Your task to perform on an android device: find snoozed emails in the gmail app Image 0: 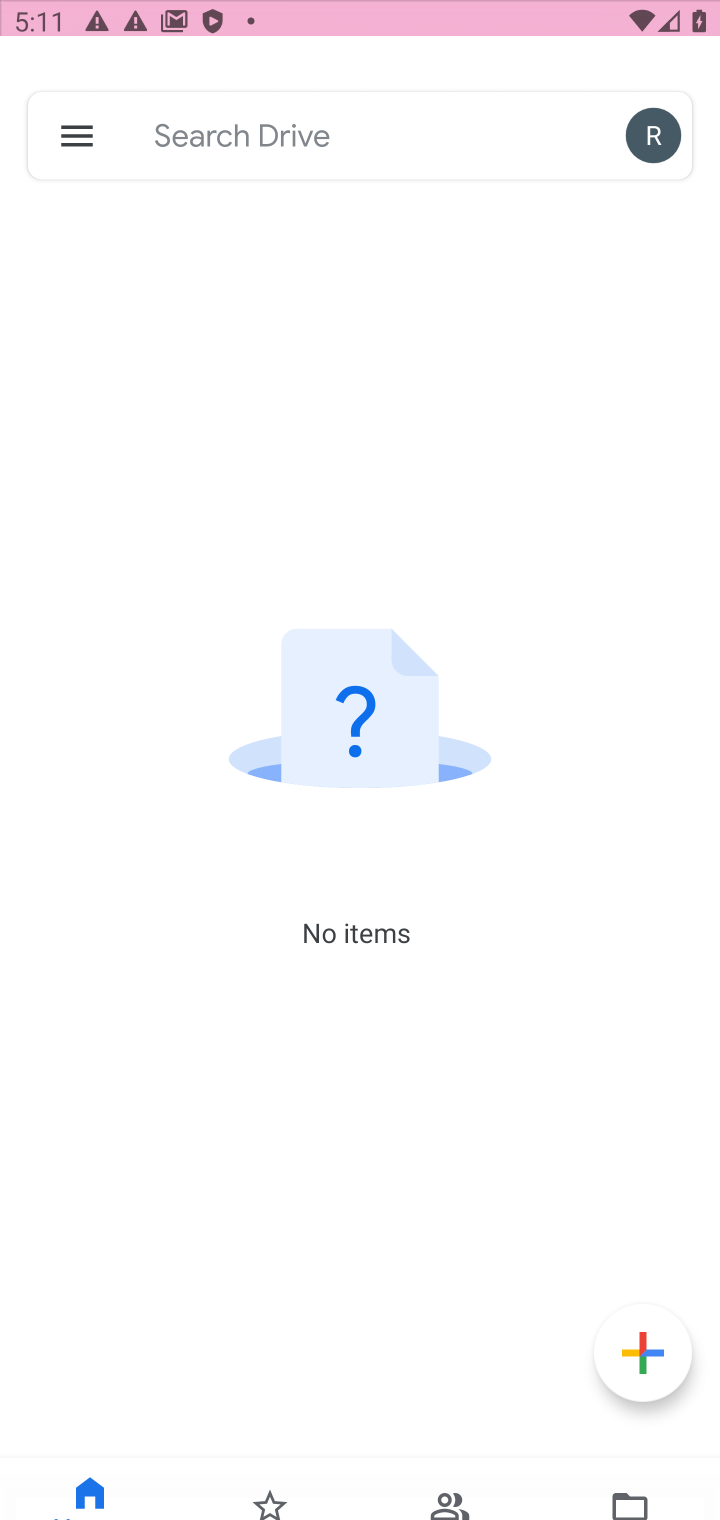
Step 0: press home button
Your task to perform on an android device: find snoozed emails in the gmail app Image 1: 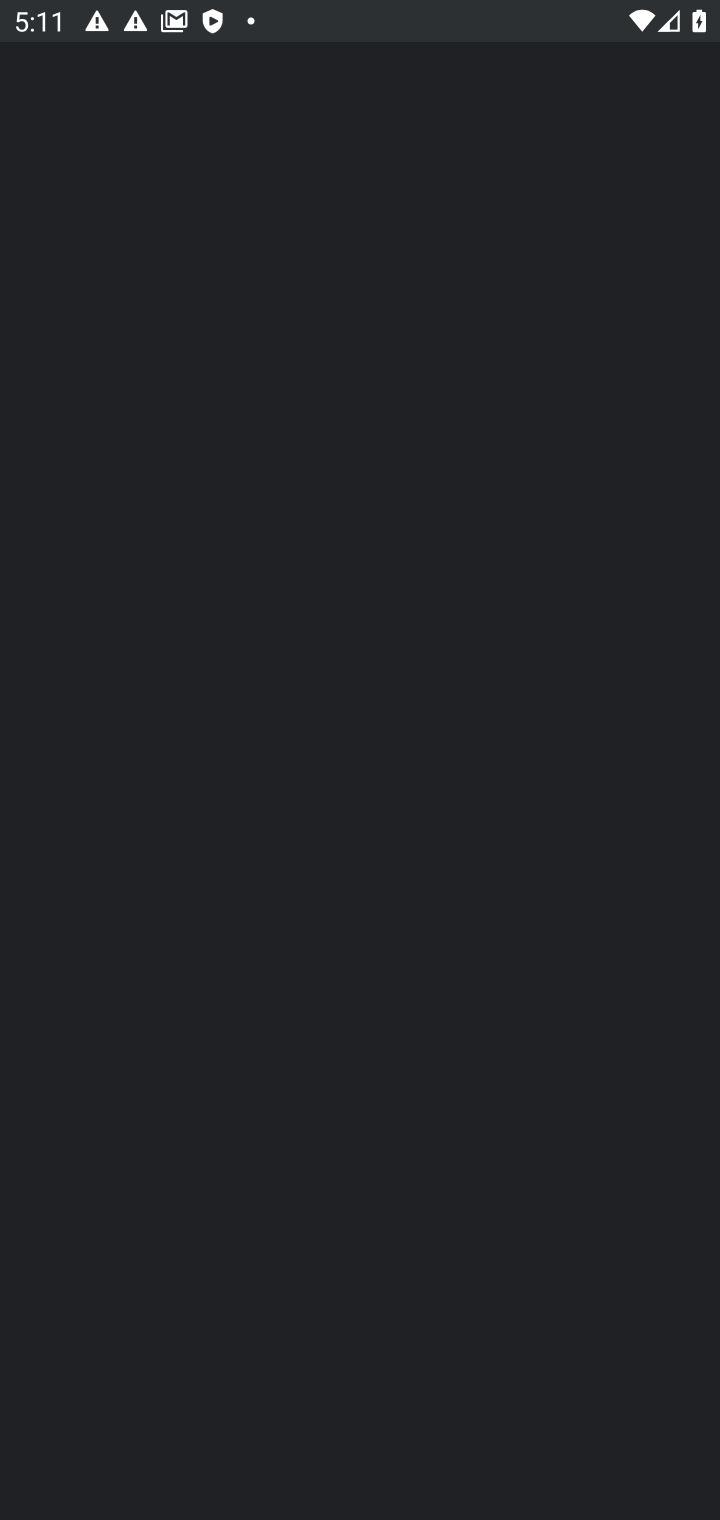
Step 1: press home button
Your task to perform on an android device: find snoozed emails in the gmail app Image 2: 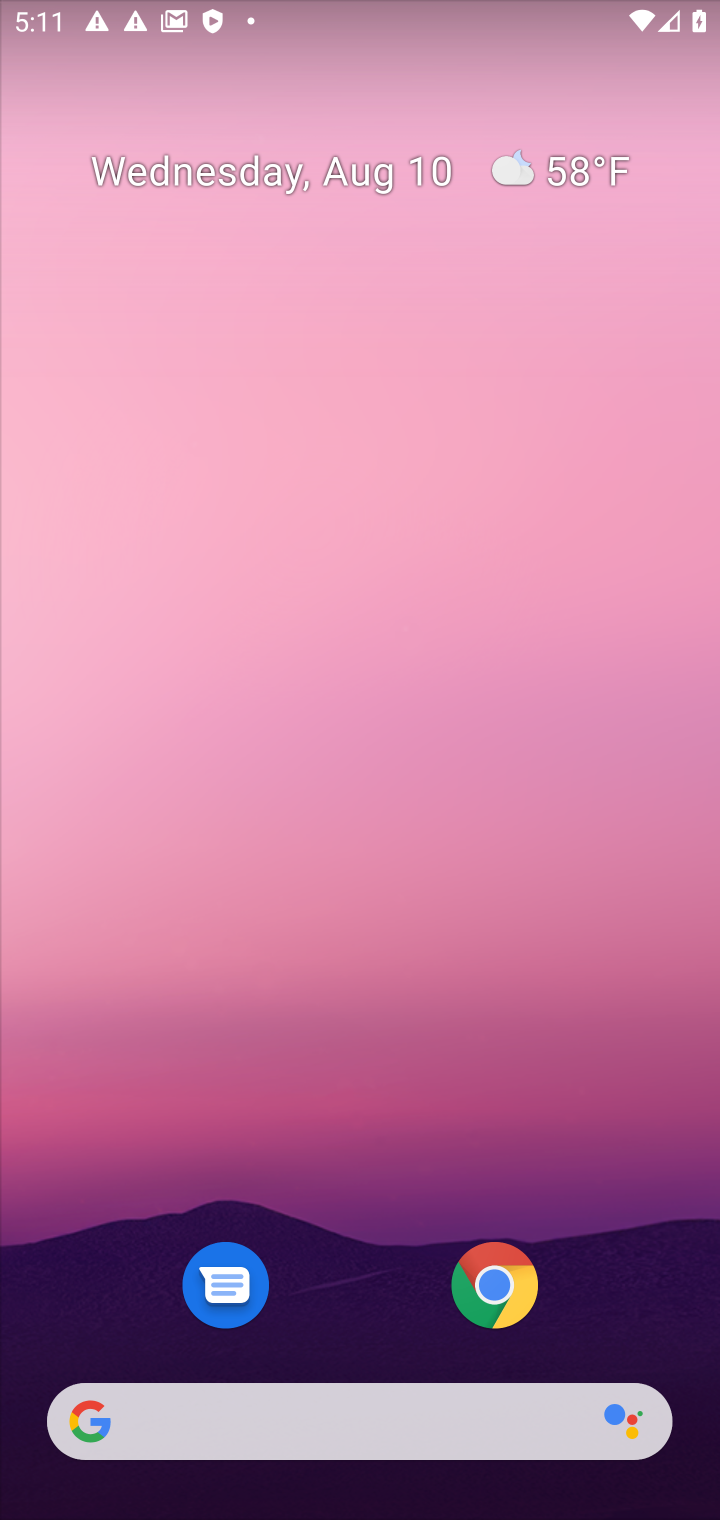
Step 2: press home button
Your task to perform on an android device: find snoozed emails in the gmail app Image 3: 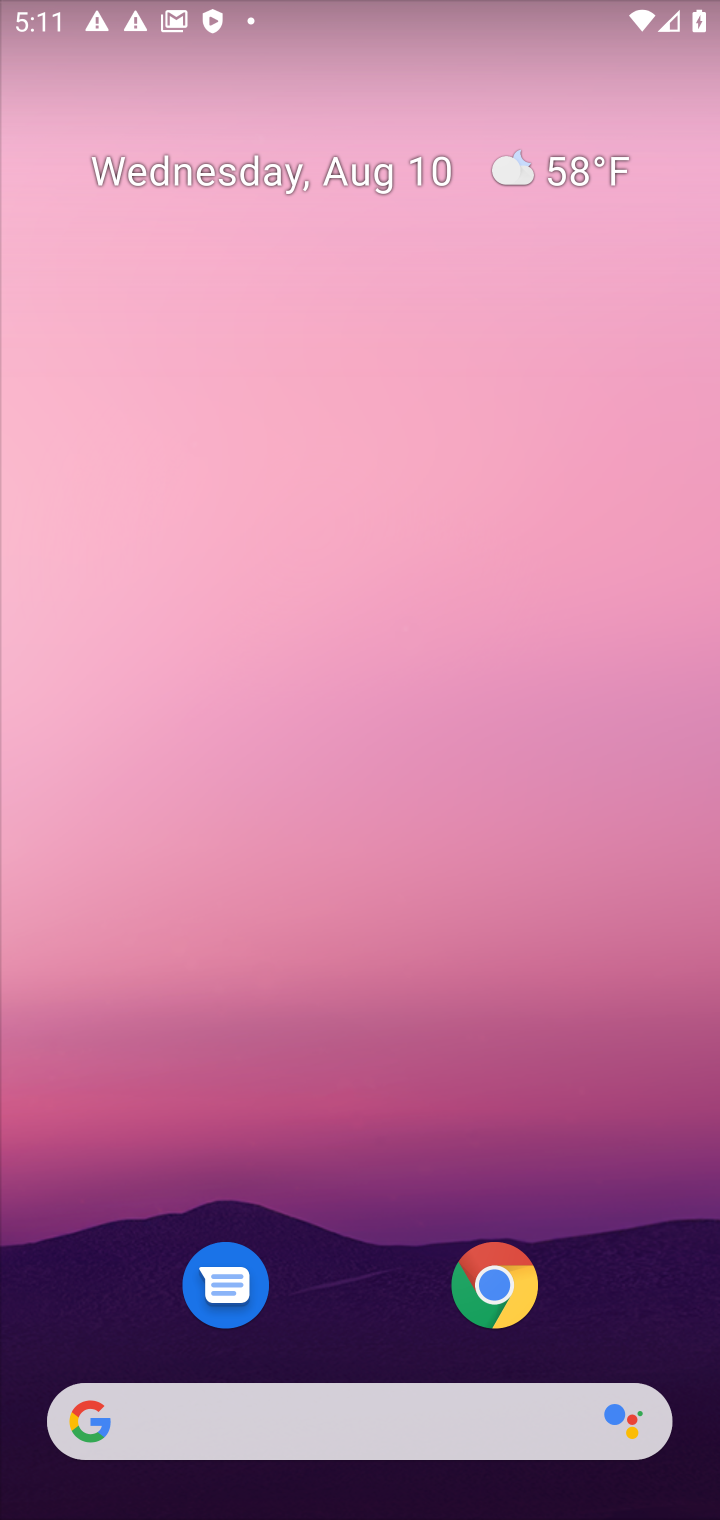
Step 3: press home button
Your task to perform on an android device: find snoozed emails in the gmail app Image 4: 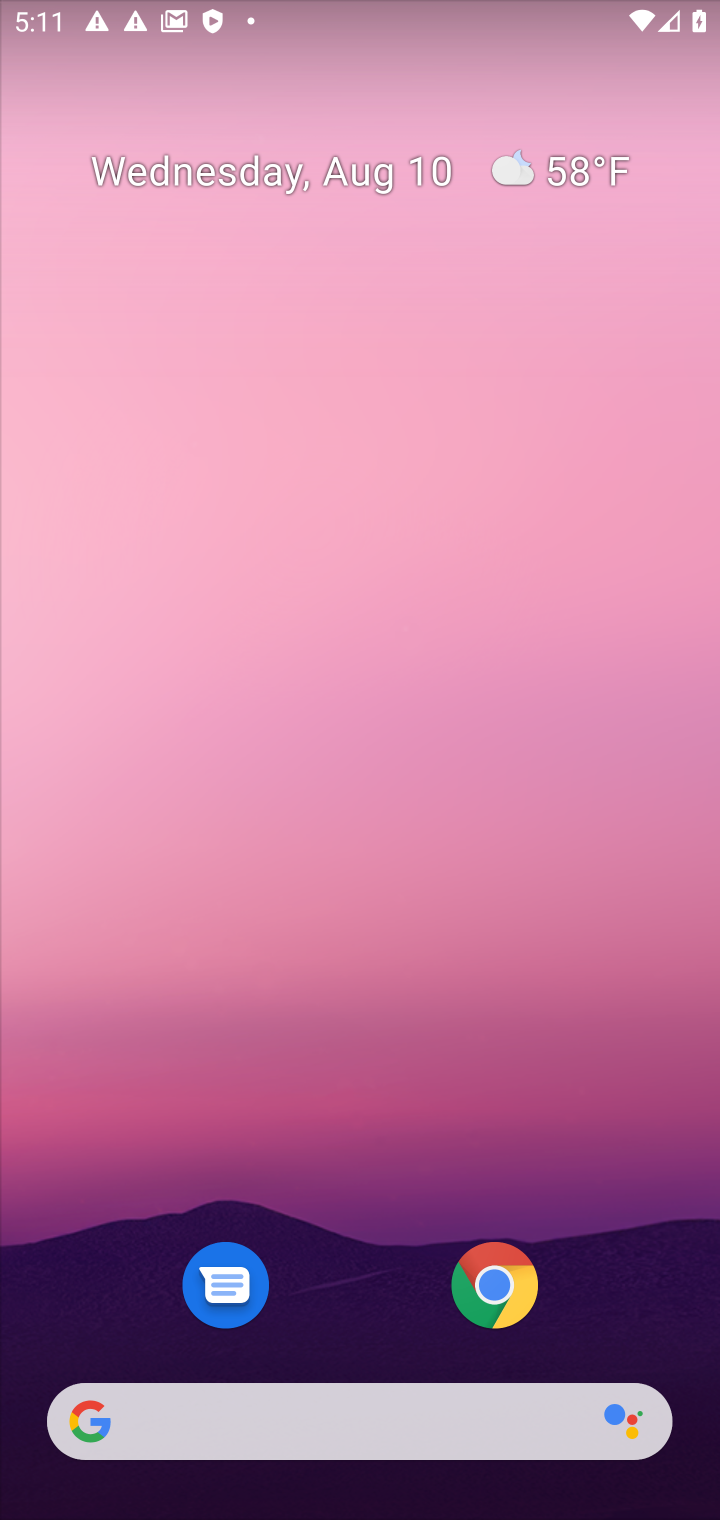
Step 4: drag from (459, 1478) to (440, 114)
Your task to perform on an android device: find snoozed emails in the gmail app Image 5: 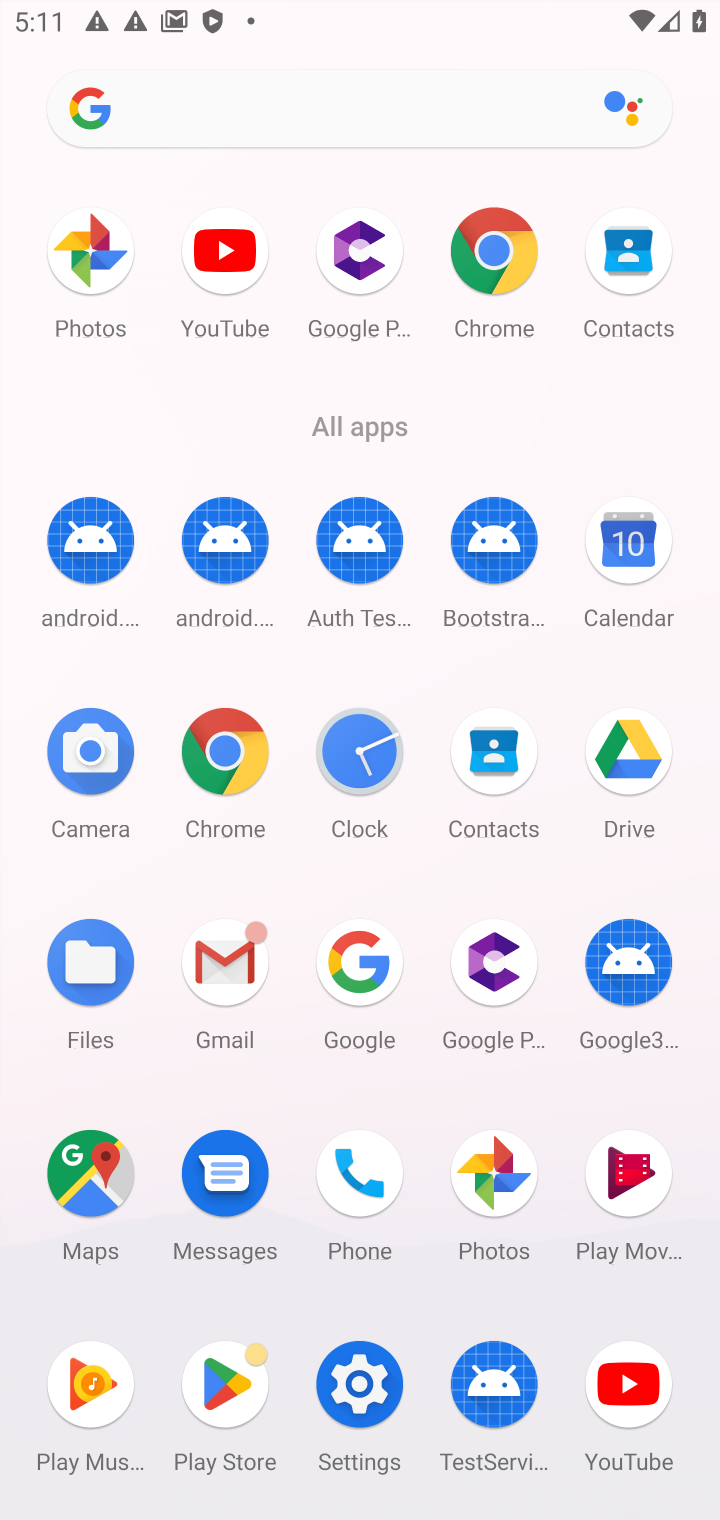
Step 5: click (222, 983)
Your task to perform on an android device: find snoozed emails in the gmail app Image 6: 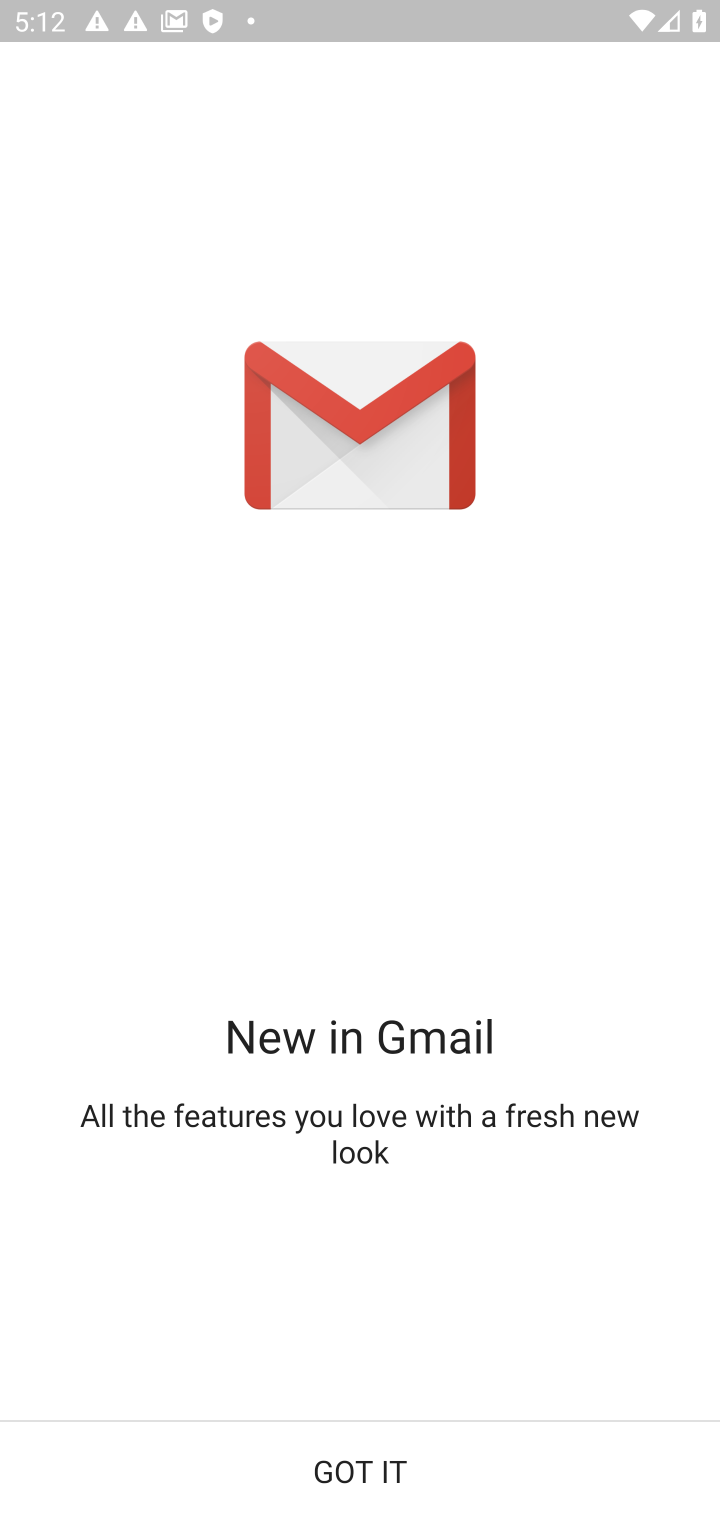
Step 6: click (347, 1471)
Your task to perform on an android device: find snoozed emails in the gmail app Image 7: 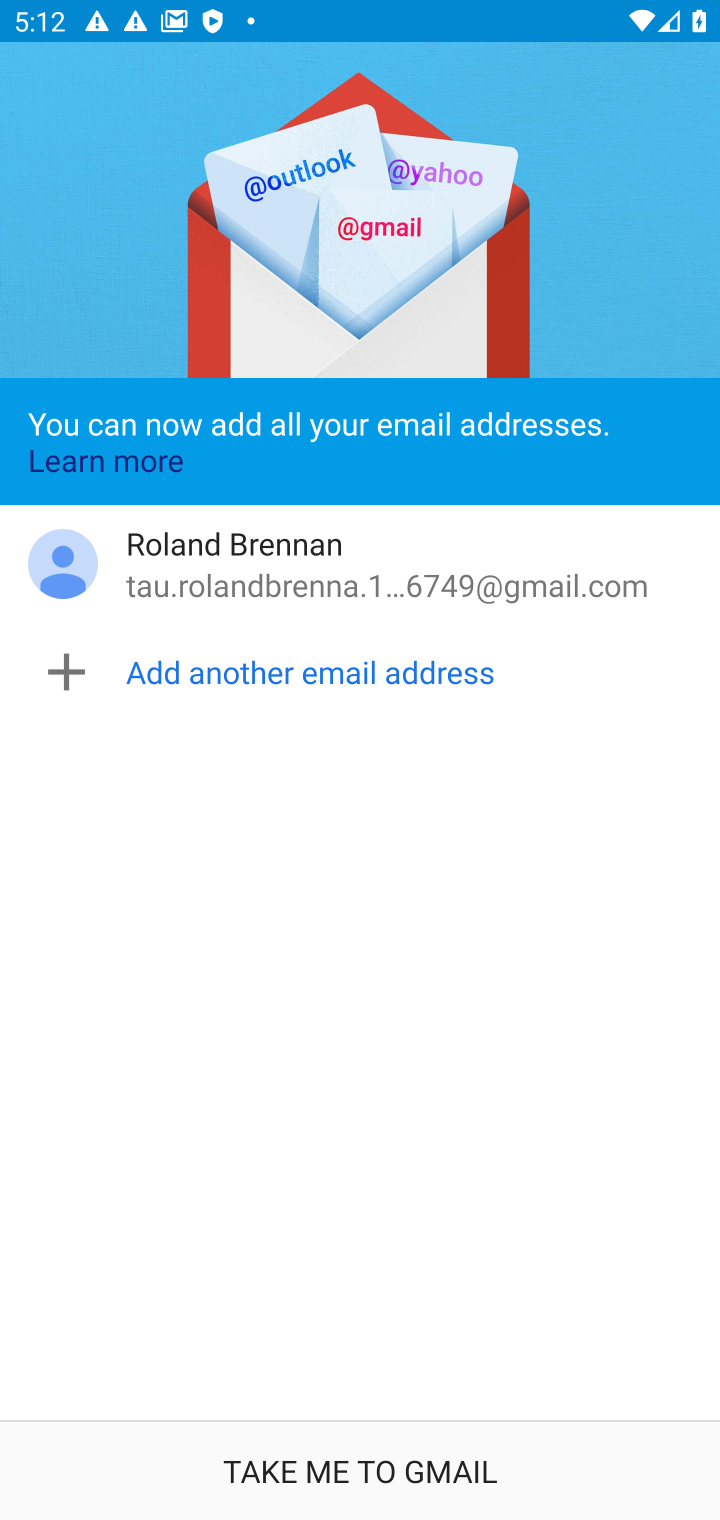
Step 7: click (347, 1457)
Your task to perform on an android device: find snoozed emails in the gmail app Image 8: 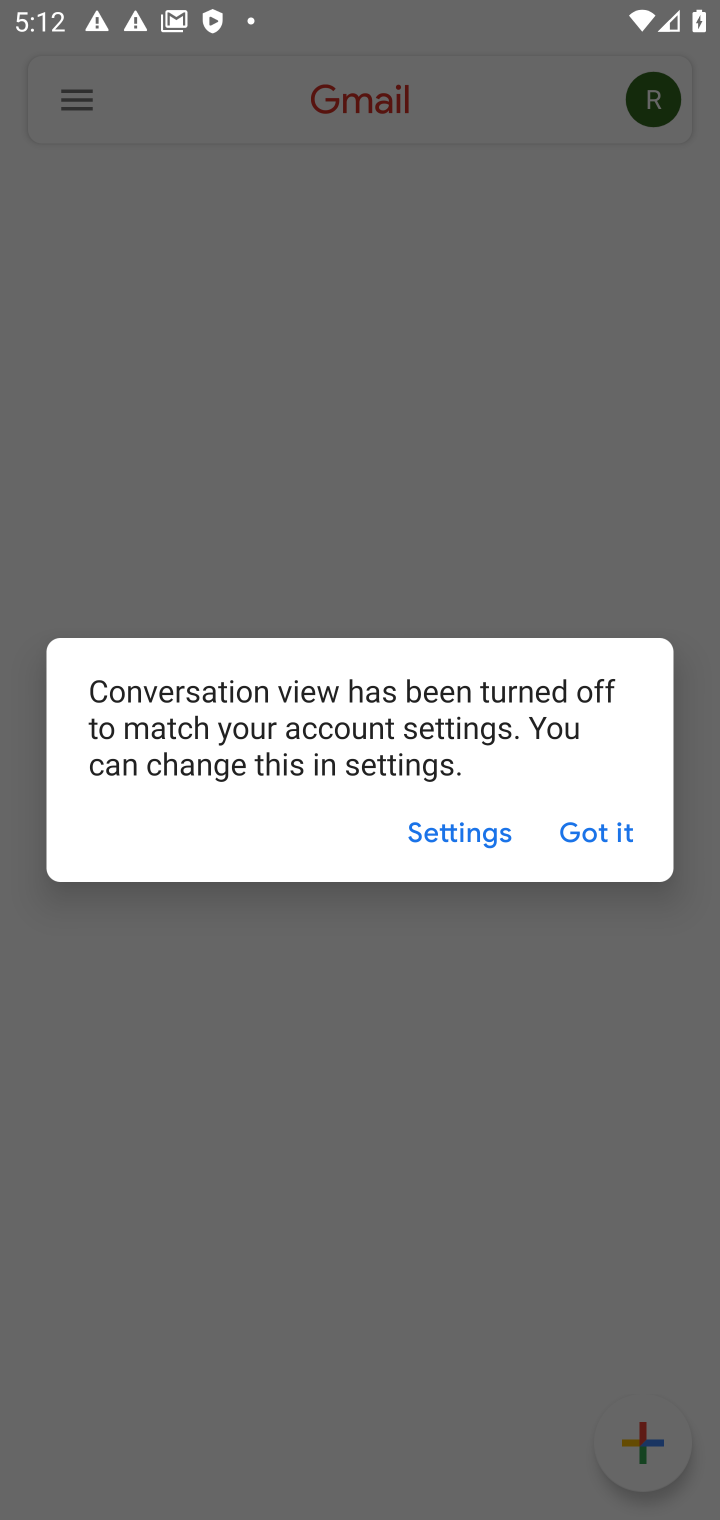
Step 8: click (589, 824)
Your task to perform on an android device: find snoozed emails in the gmail app Image 9: 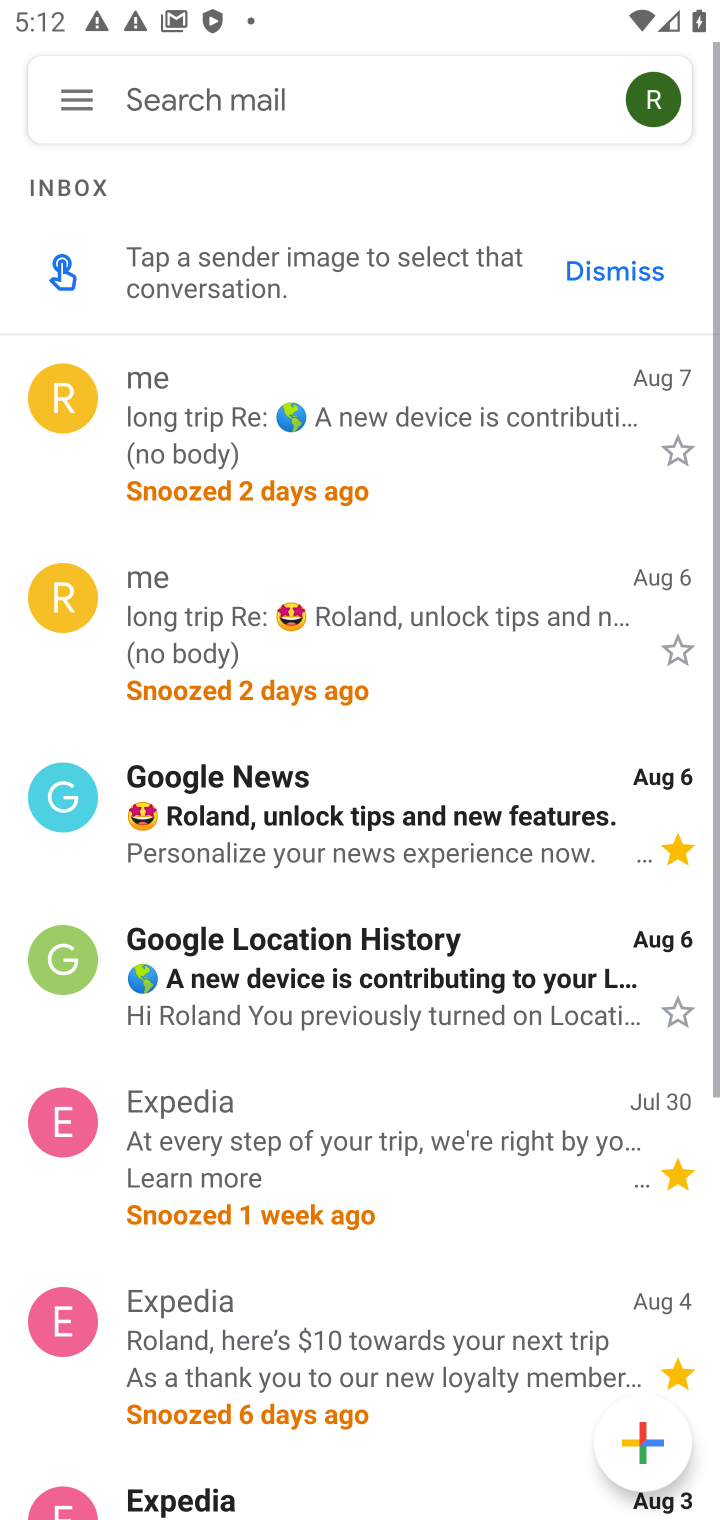
Step 9: click (299, 927)
Your task to perform on an android device: find snoozed emails in the gmail app Image 10: 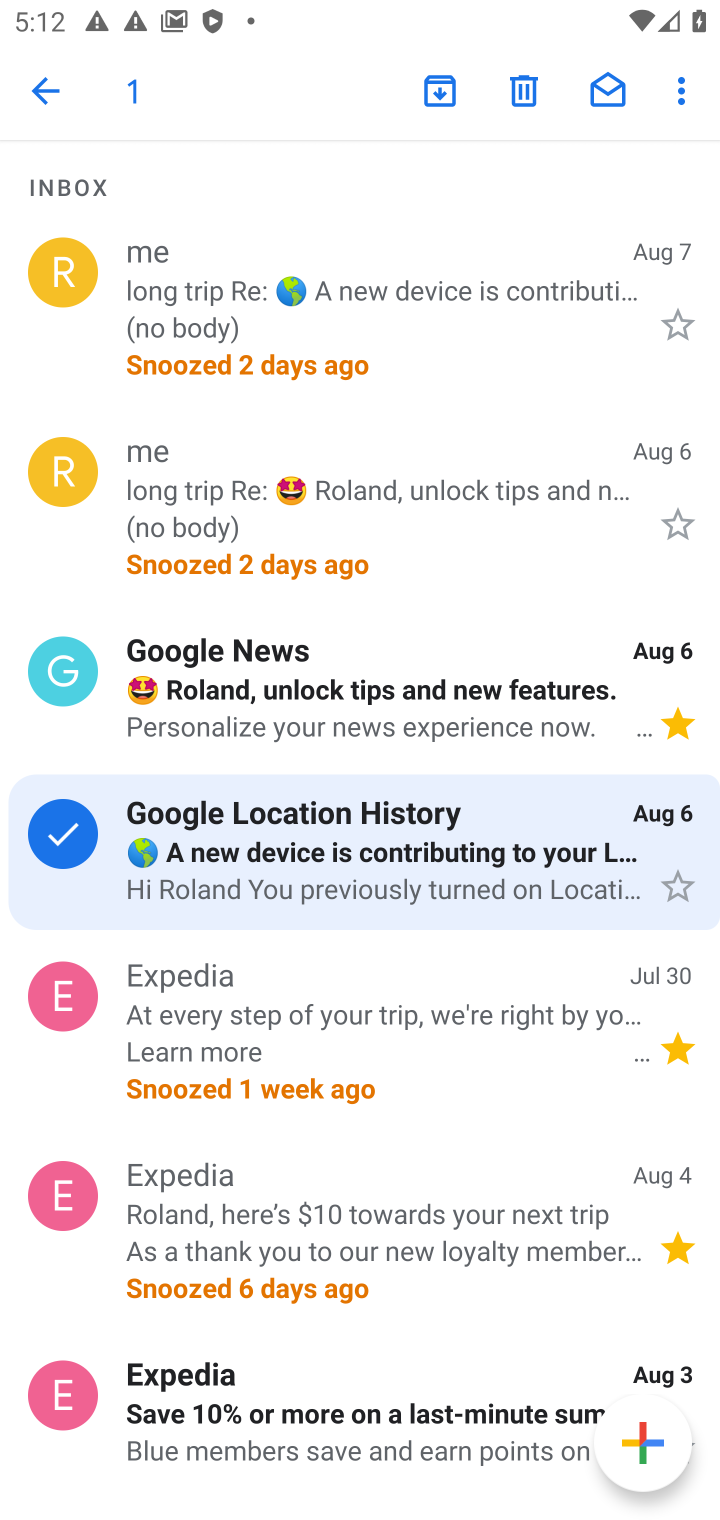
Step 10: click (32, 119)
Your task to perform on an android device: find snoozed emails in the gmail app Image 11: 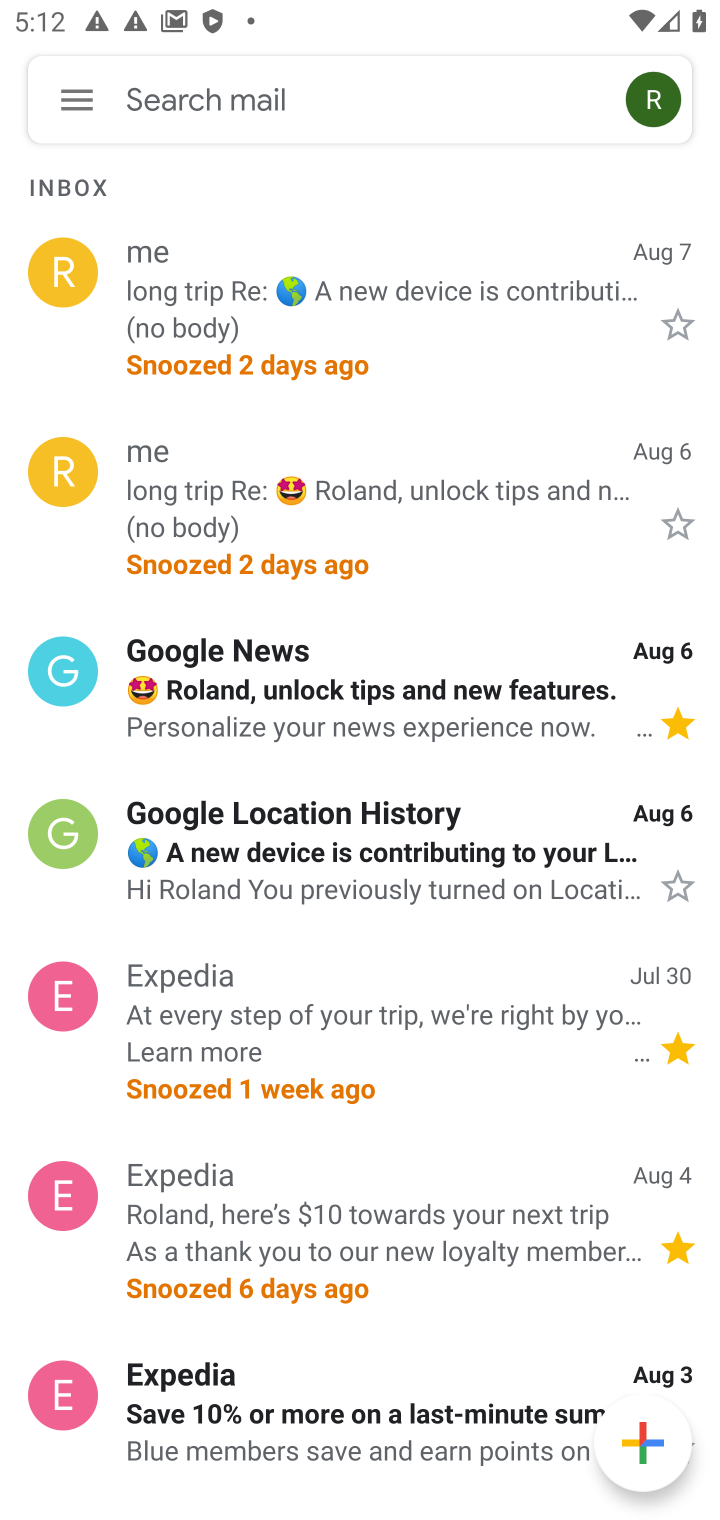
Step 11: click (73, 103)
Your task to perform on an android device: find snoozed emails in the gmail app Image 12: 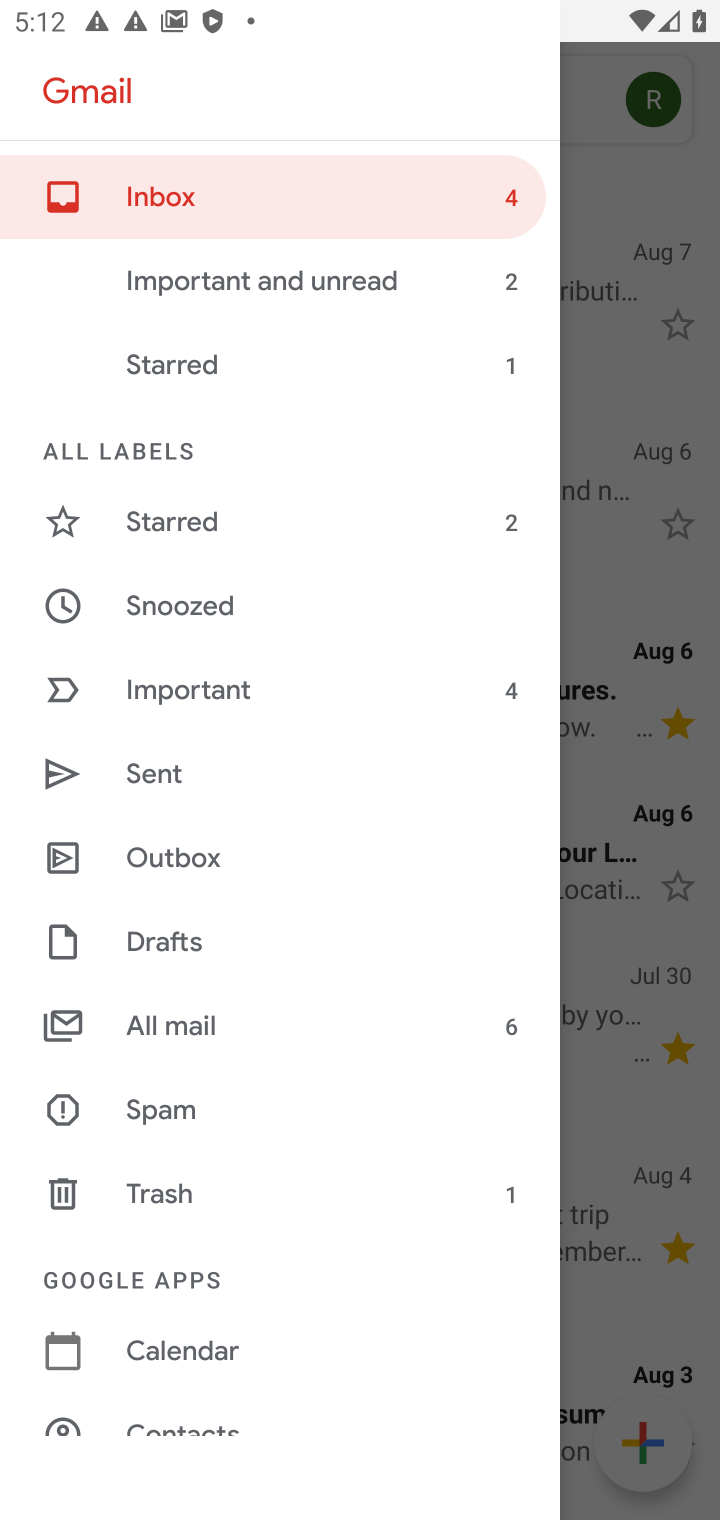
Step 12: click (134, 636)
Your task to perform on an android device: find snoozed emails in the gmail app Image 13: 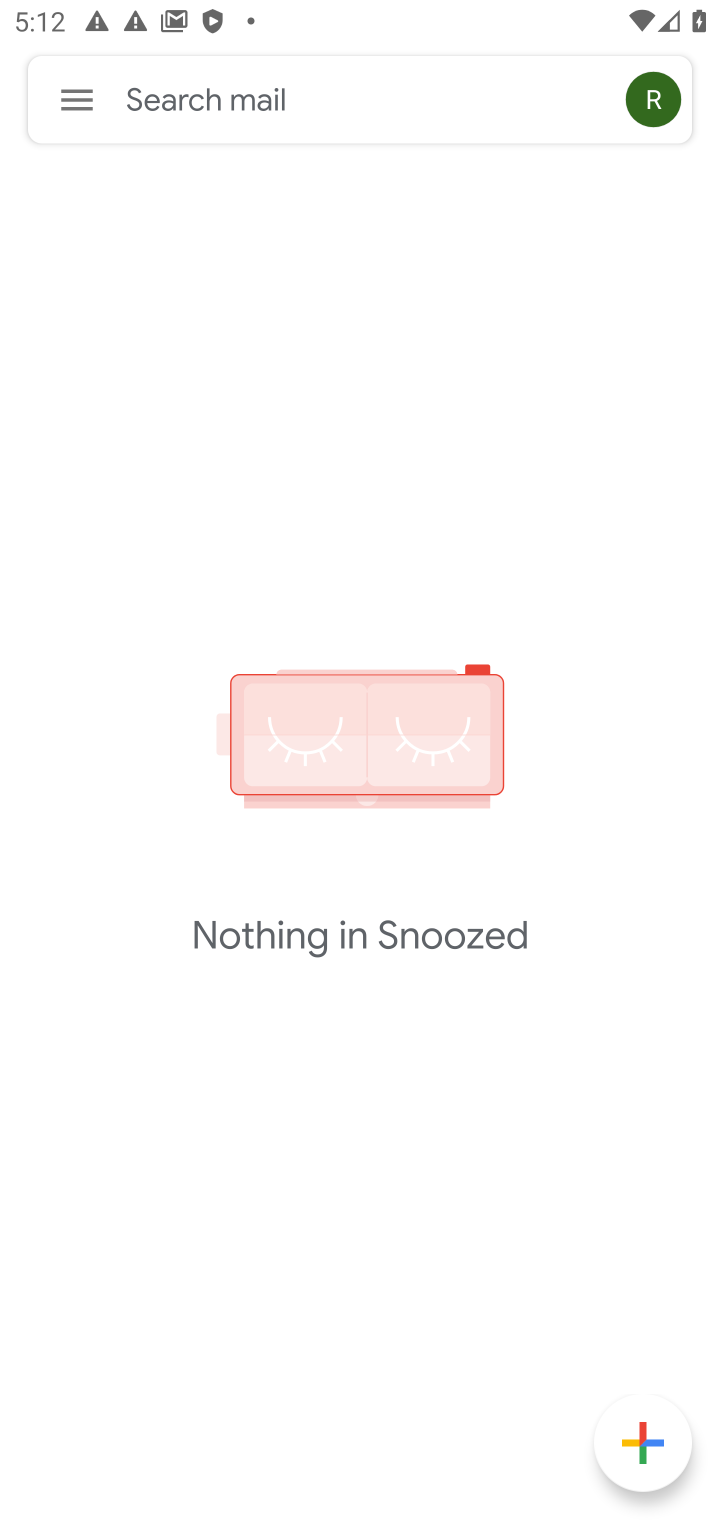
Step 13: task complete